Your task to perform on an android device: turn on the 24-hour format for clock Image 0: 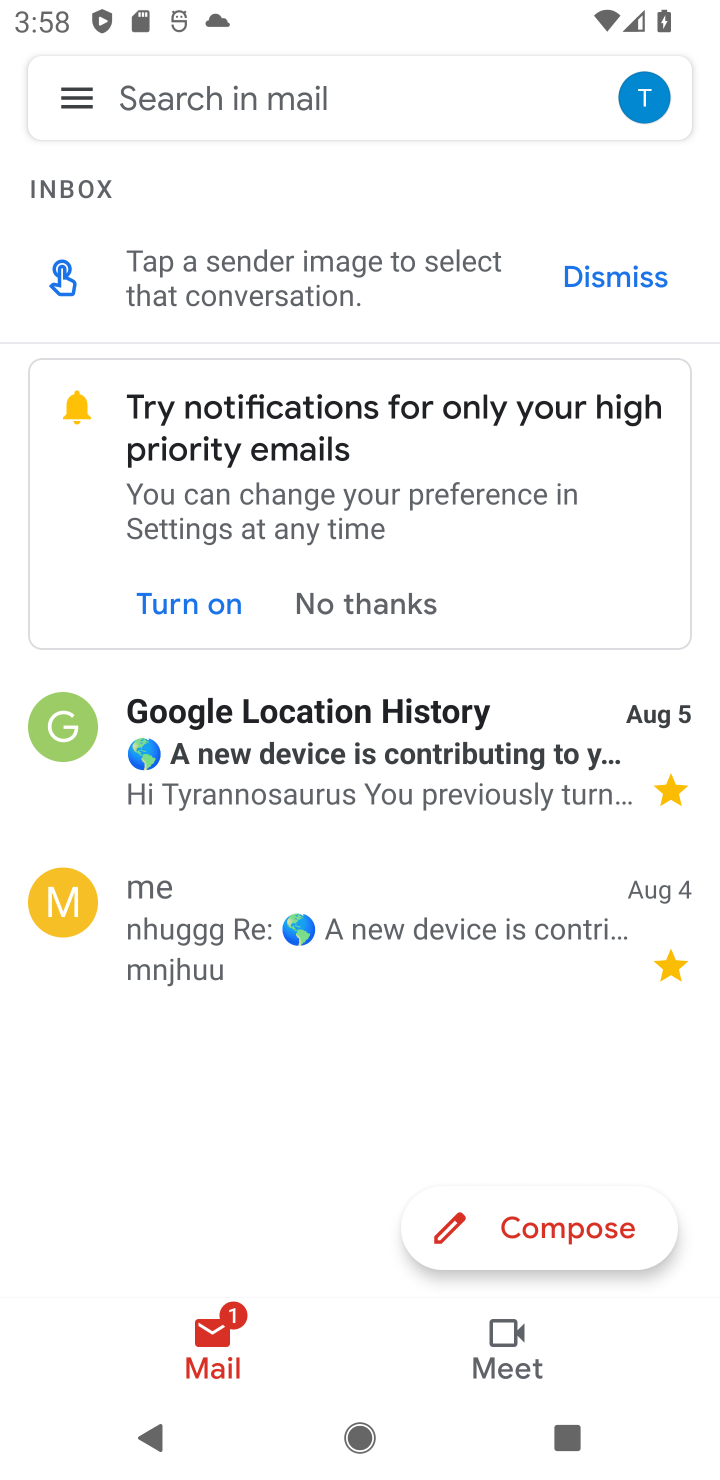
Step 0: press home button
Your task to perform on an android device: turn on the 24-hour format for clock Image 1: 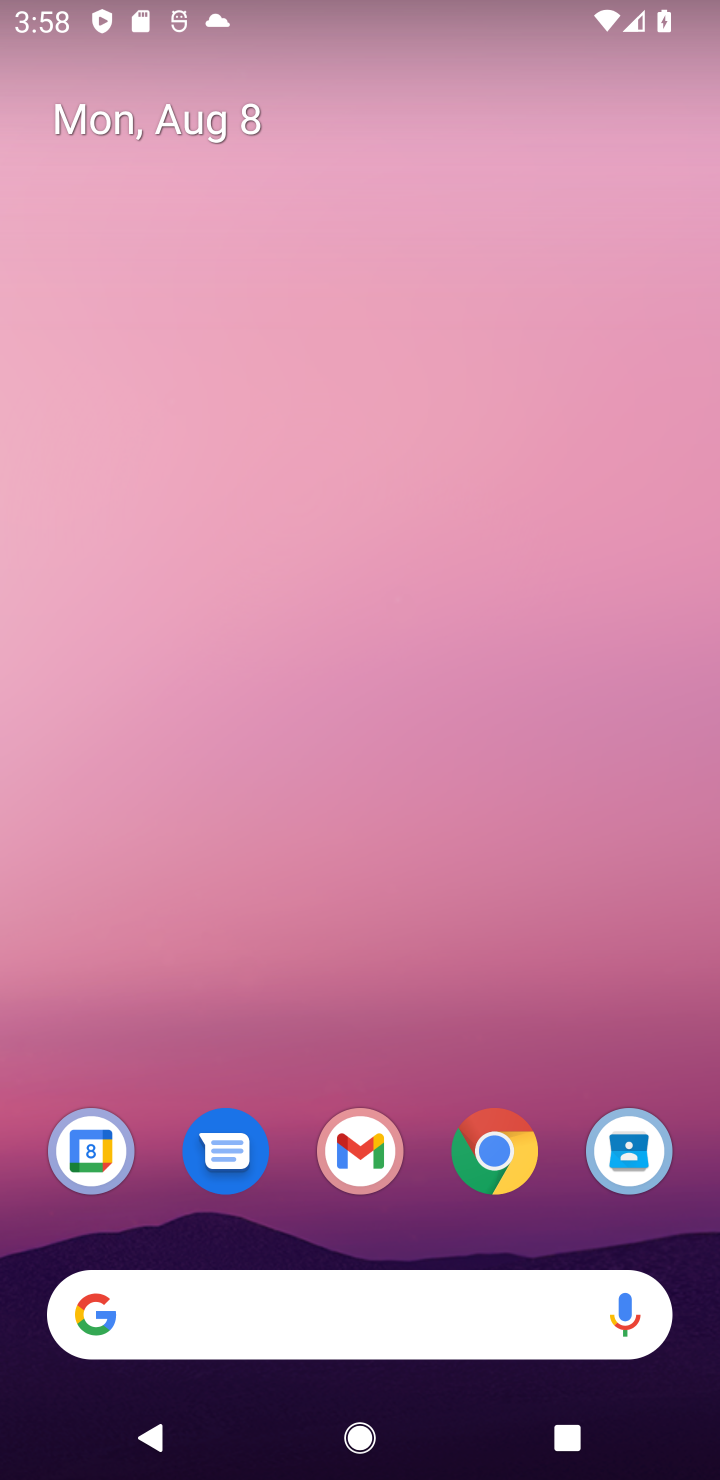
Step 1: drag from (348, 1064) to (390, 1)
Your task to perform on an android device: turn on the 24-hour format for clock Image 2: 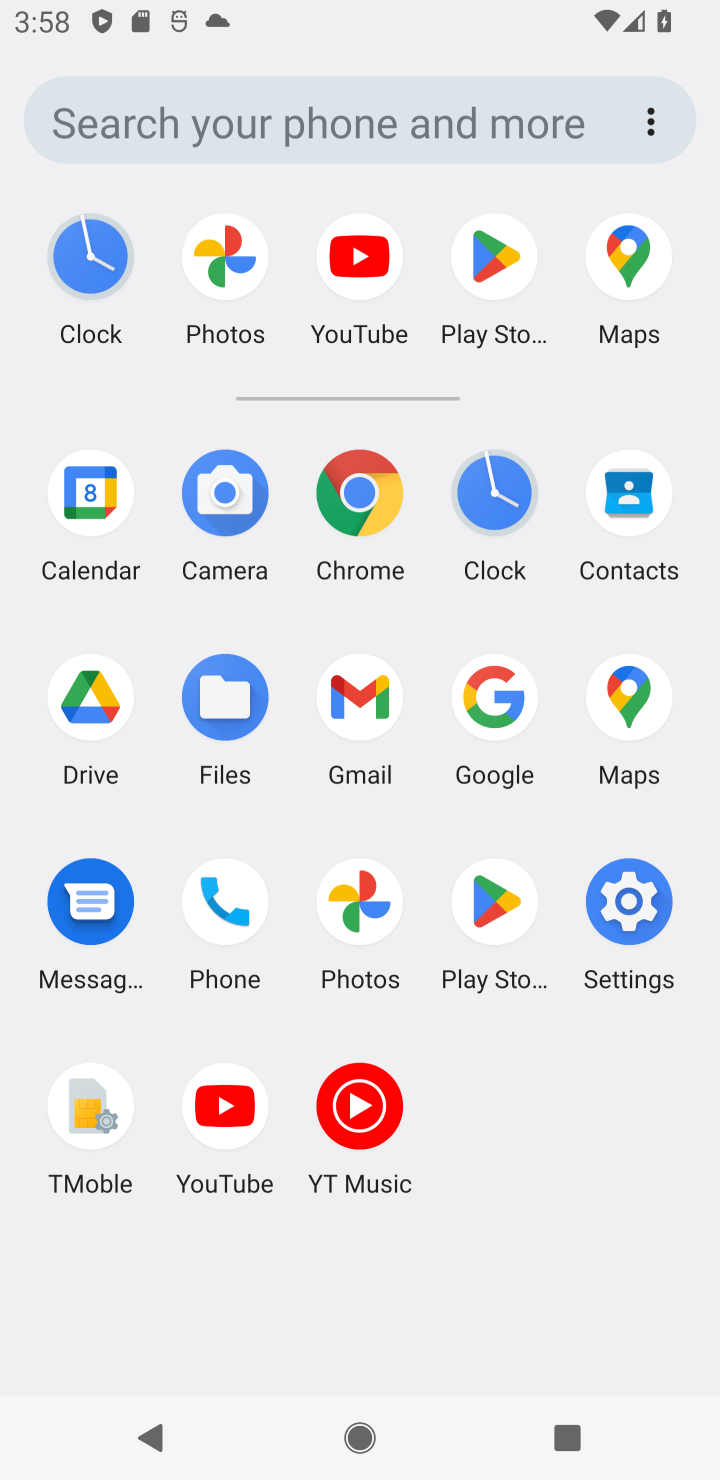
Step 2: click (499, 453)
Your task to perform on an android device: turn on the 24-hour format for clock Image 3: 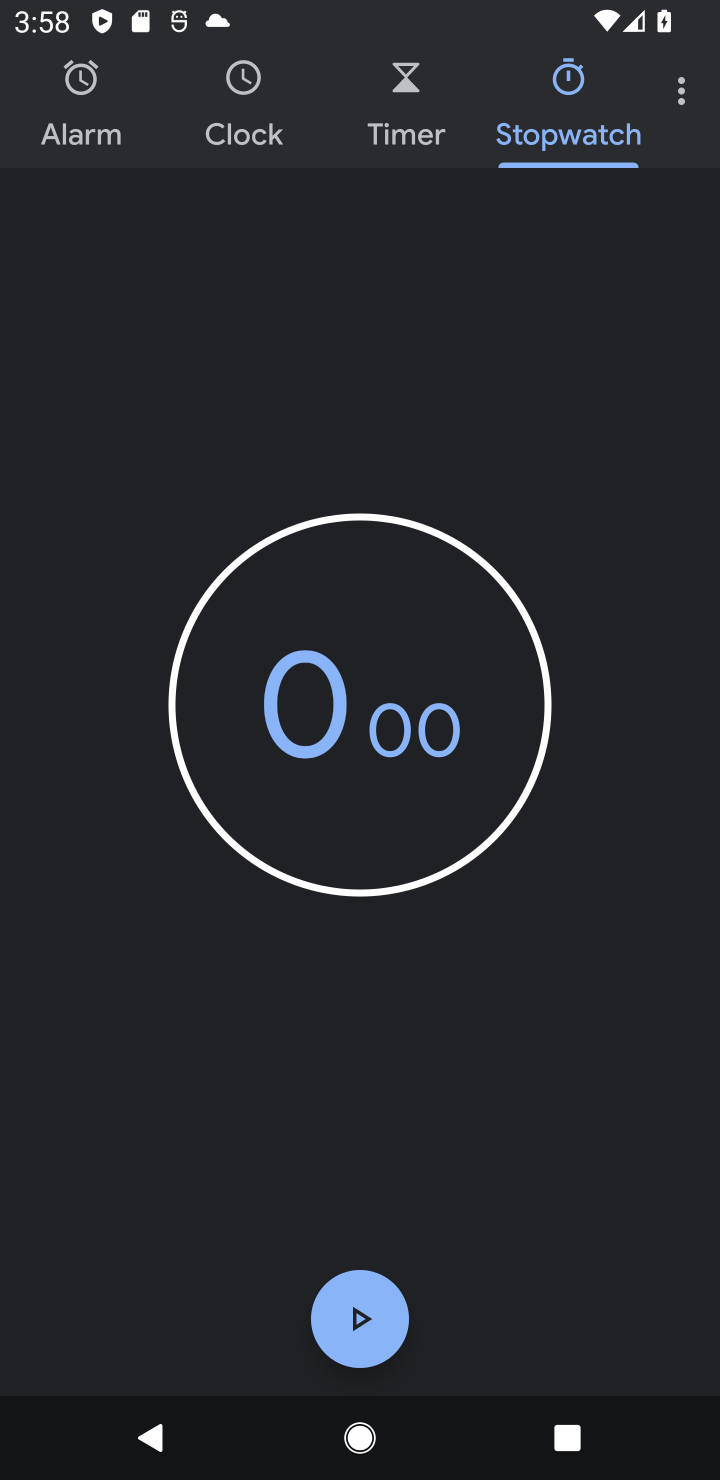
Step 3: click (695, 81)
Your task to perform on an android device: turn on the 24-hour format for clock Image 4: 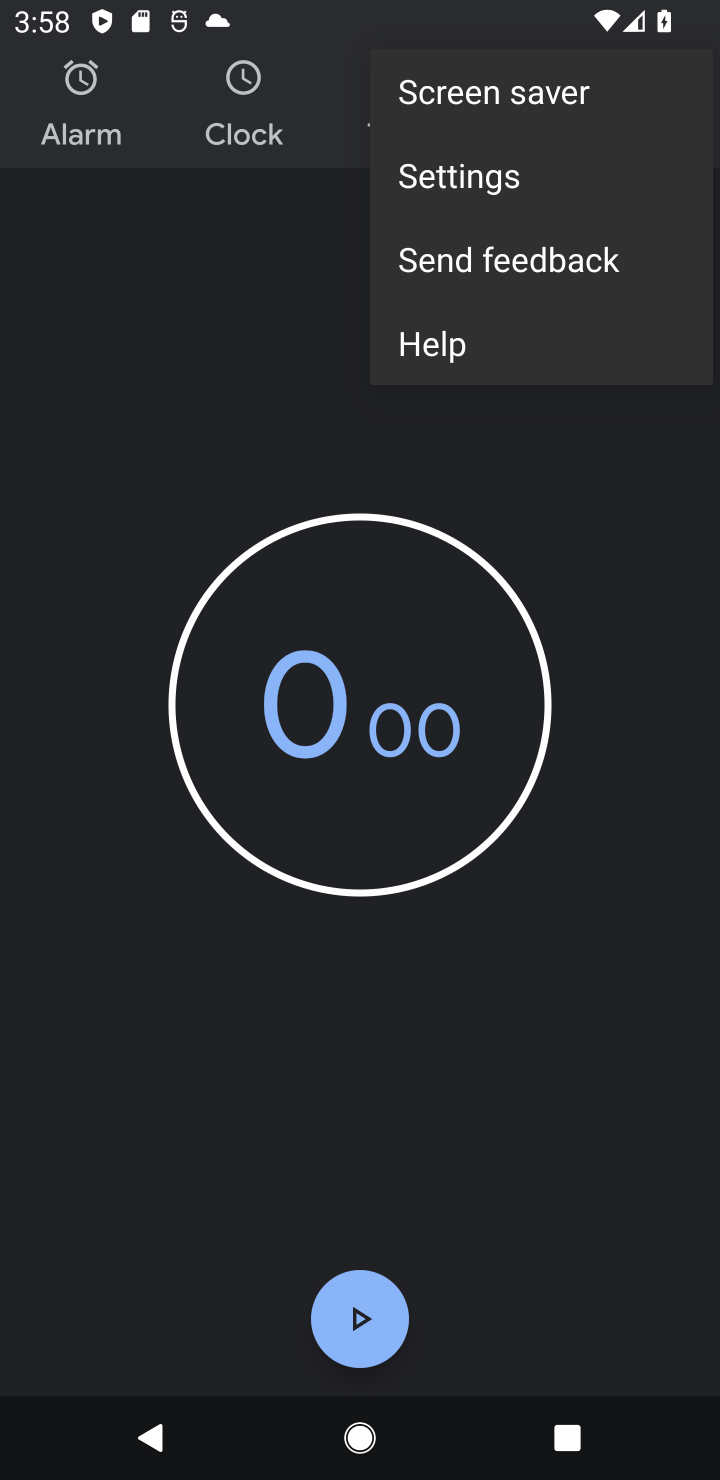
Step 4: click (460, 196)
Your task to perform on an android device: turn on the 24-hour format for clock Image 5: 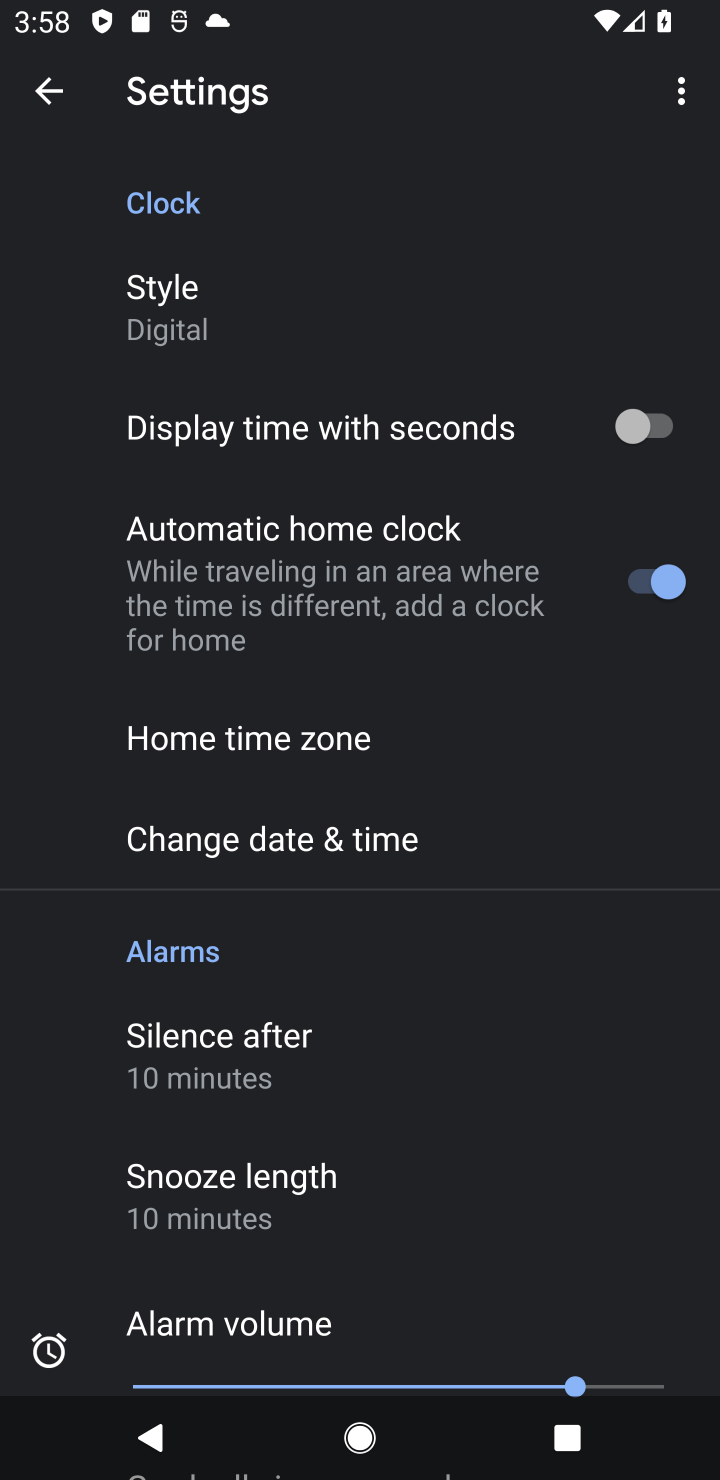
Step 5: click (258, 828)
Your task to perform on an android device: turn on the 24-hour format for clock Image 6: 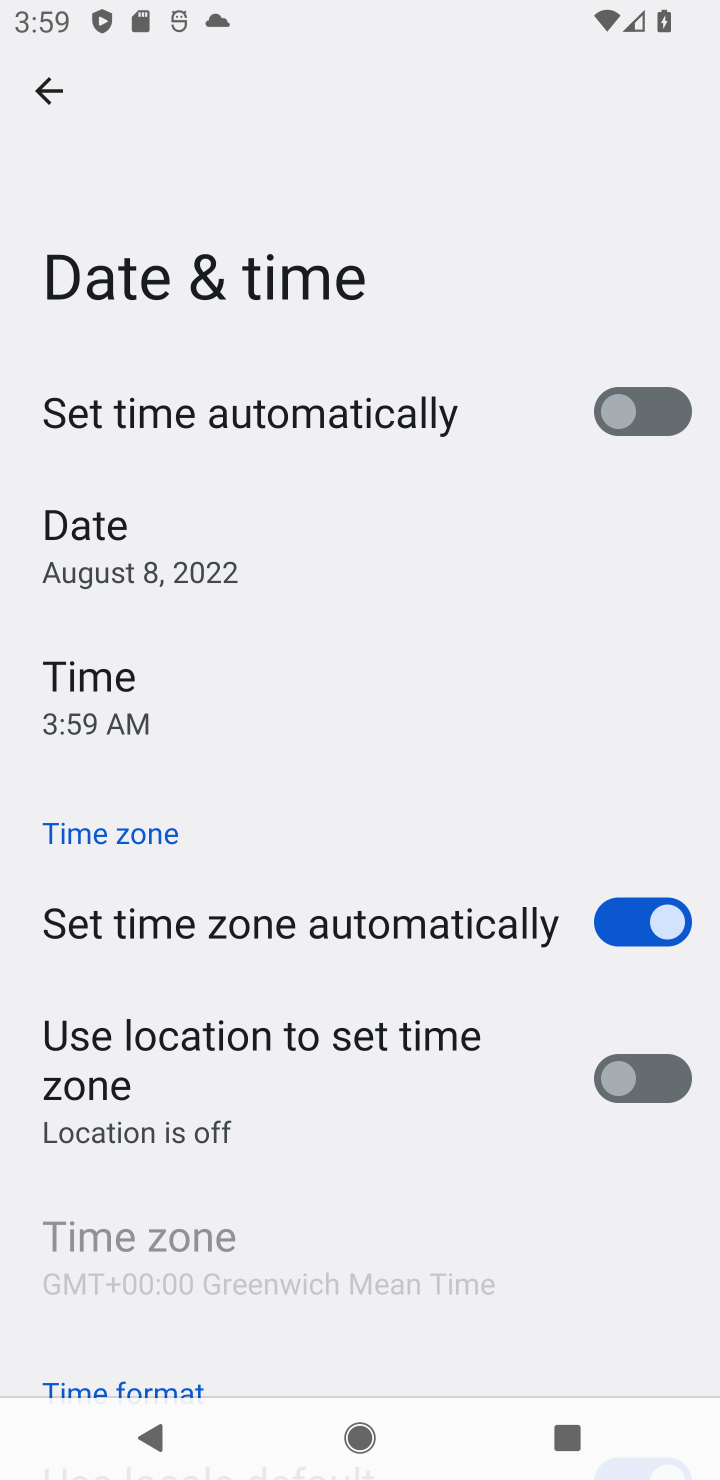
Step 6: drag from (420, 1332) to (360, 768)
Your task to perform on an android device: turn on the 24-hour format for clock Image 7: 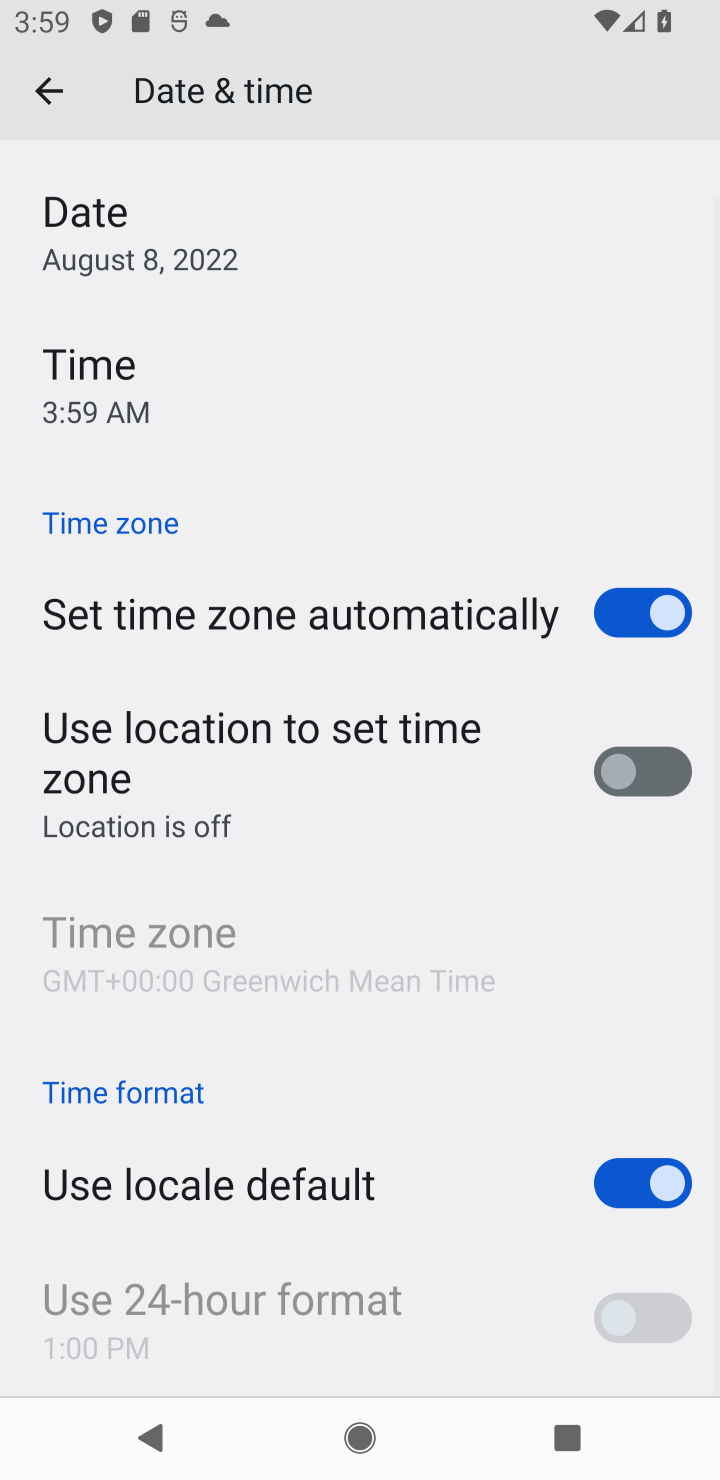
Step 7: click (422, 704)
Your task to perform on an android device: turn on the 24-hour format for clock Image 8: 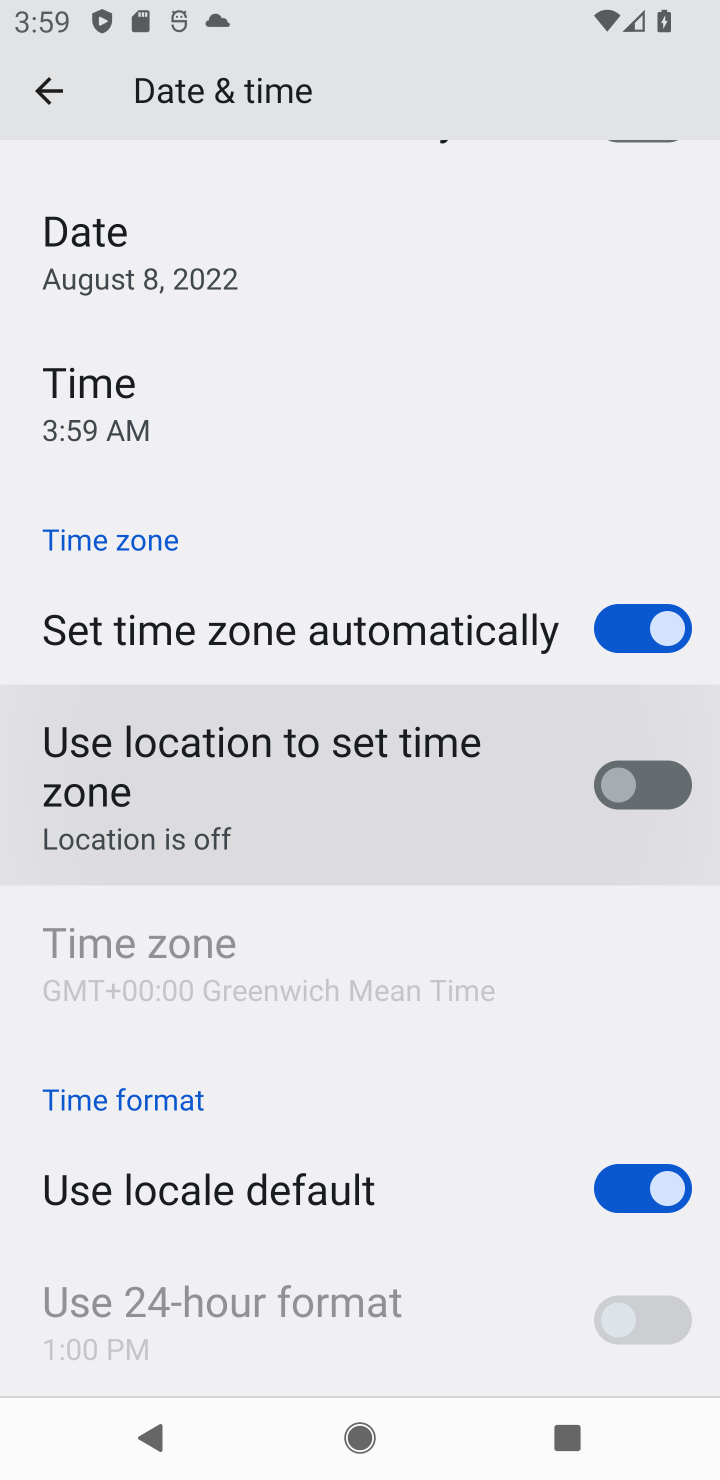
Step 8: click (603, 1158)
Your task to perform on an android device: turn on the 24-hour format for clock Image 9: 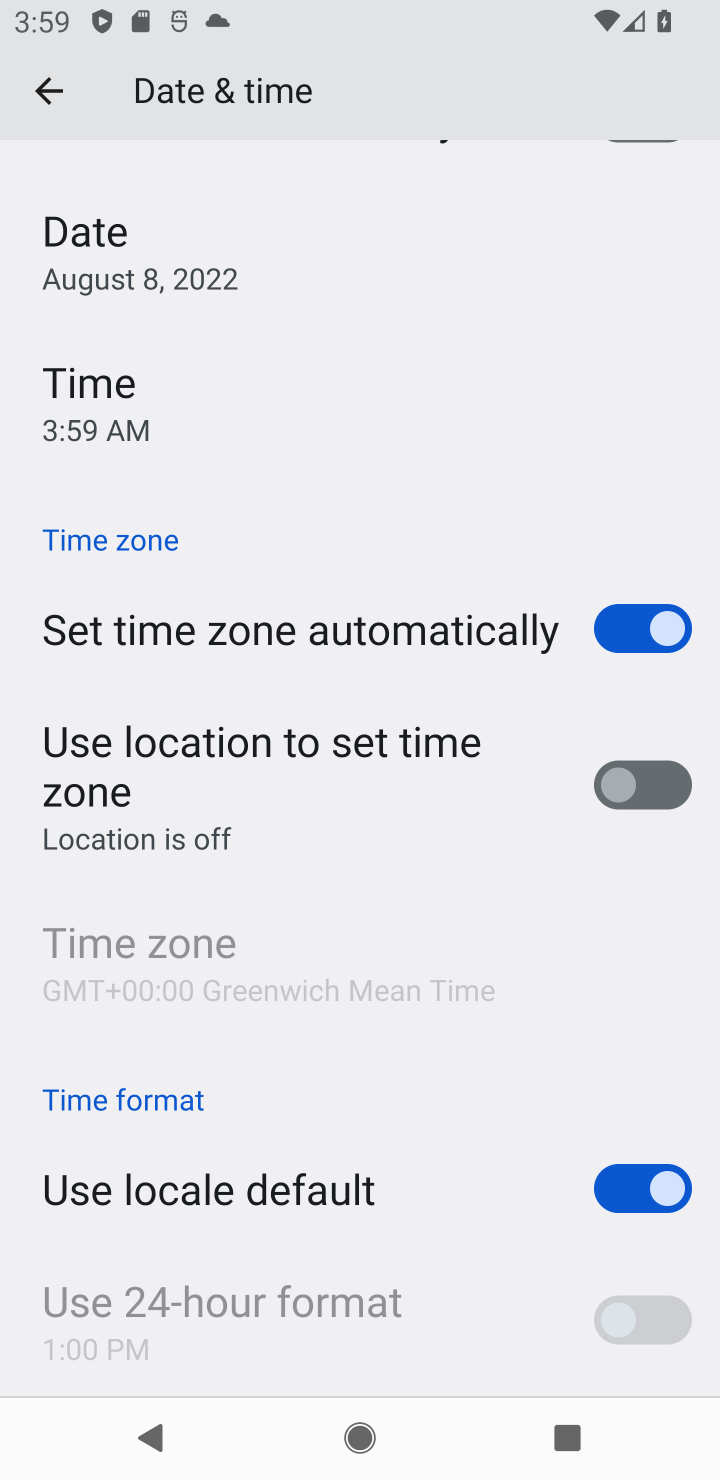
Step 9: click (629, 1192)
Your task to perform on an android device: turn on the 24-hour format for clock Image 10: 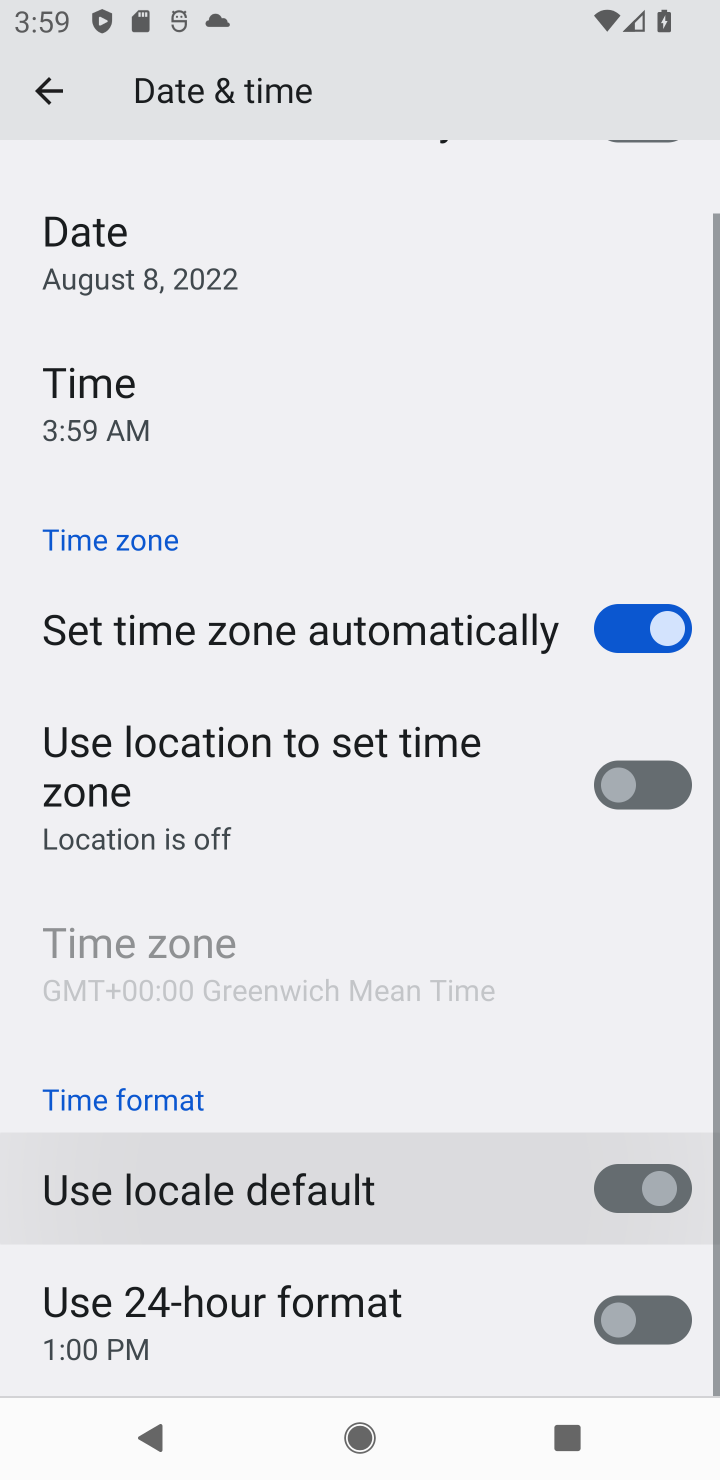
Step 10: click (666, 1321)
Your task to perform on an android device: turn on the 24-hour format for clock Image 11: 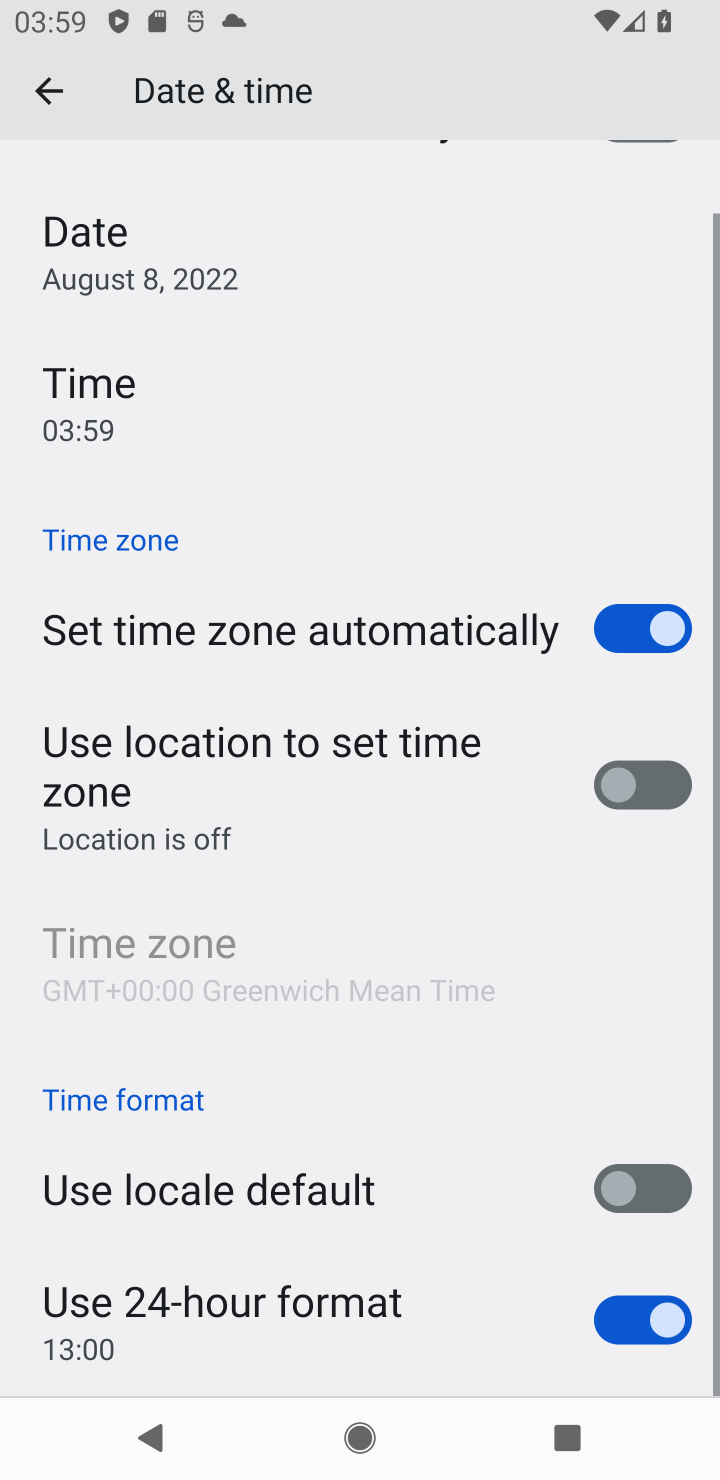
Step 11: task complete